Your task to perform on an android device: See recent photos Image 0: 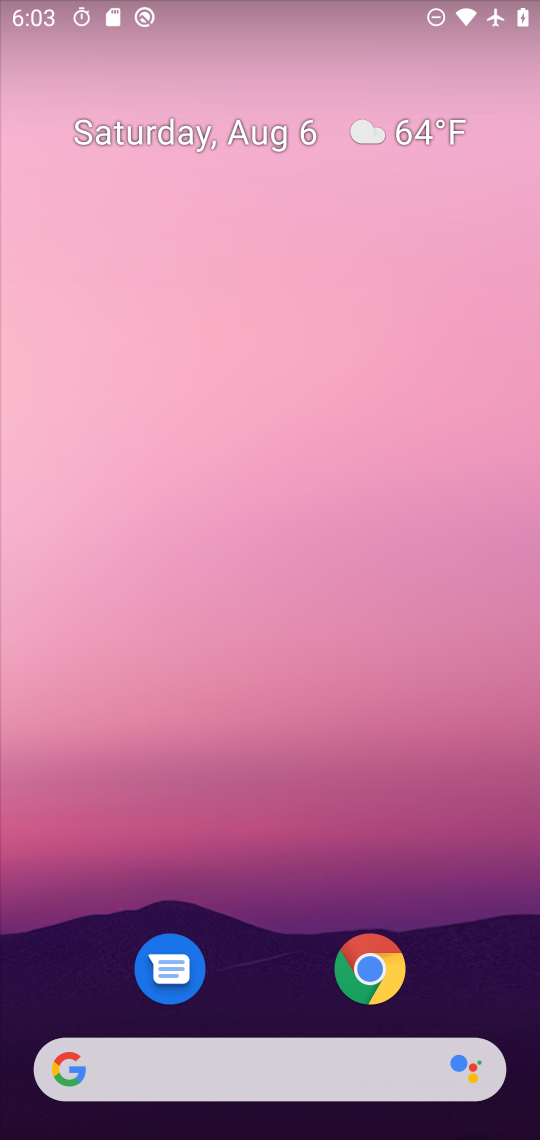
Step 0: drag from (251, 997) to (135, 142)
Your task to perform on an android device: See recent photos Image 1: 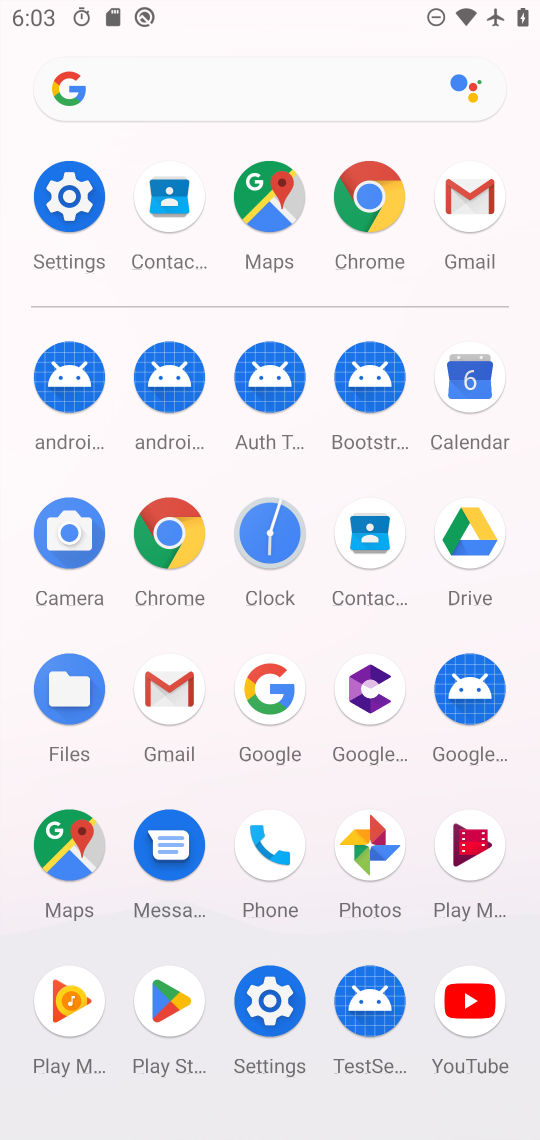
Step 1: click (365, 840)
Your task to perform on an android device: See recent photos Image 2: 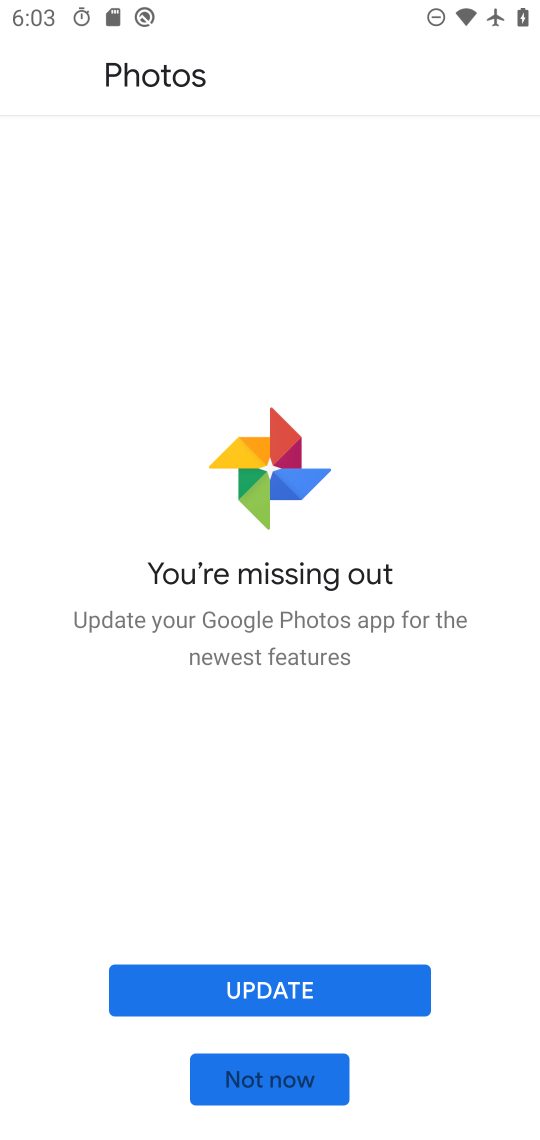
Step 2: click (272, 984)
Your task to perform on an android device: See recent photos Image 3: 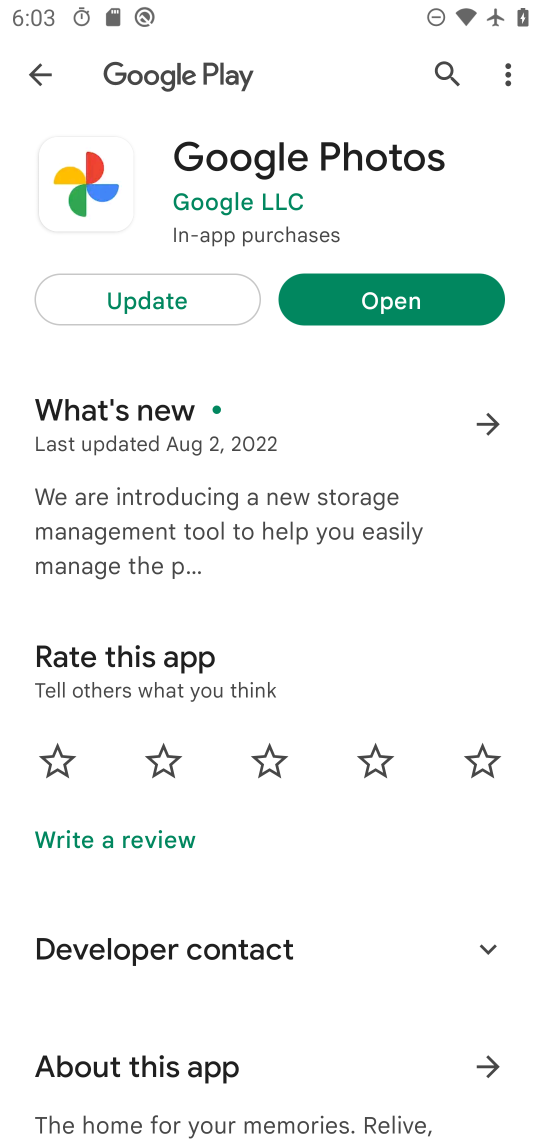
Step 3: click (205, 306)
Your task to perform on an android device: See recent photos Image 4: 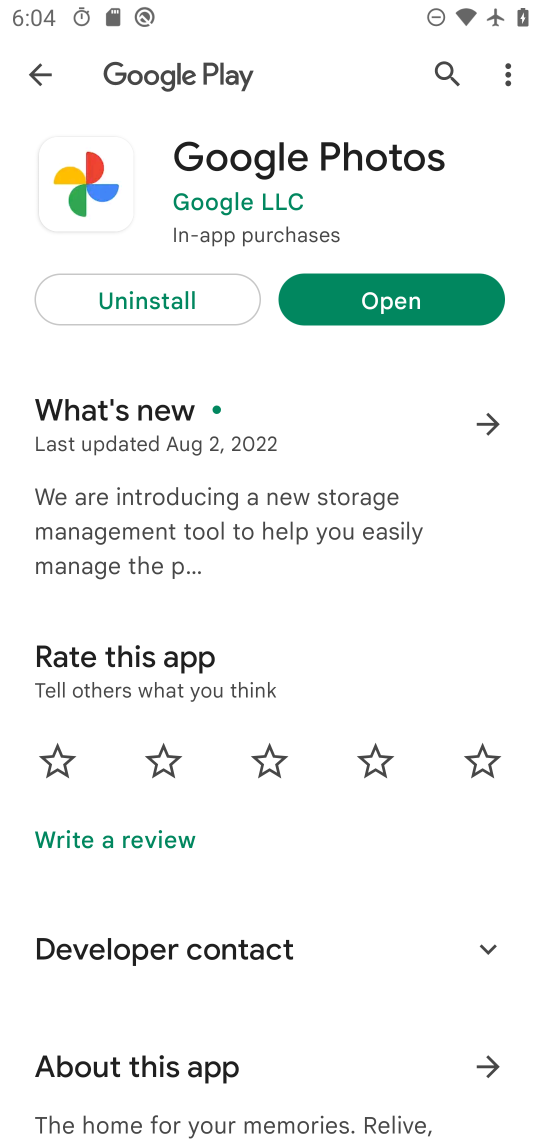
Step 4: click (420, 309)
Your task to perform on an android device: See recent photos Image 5: 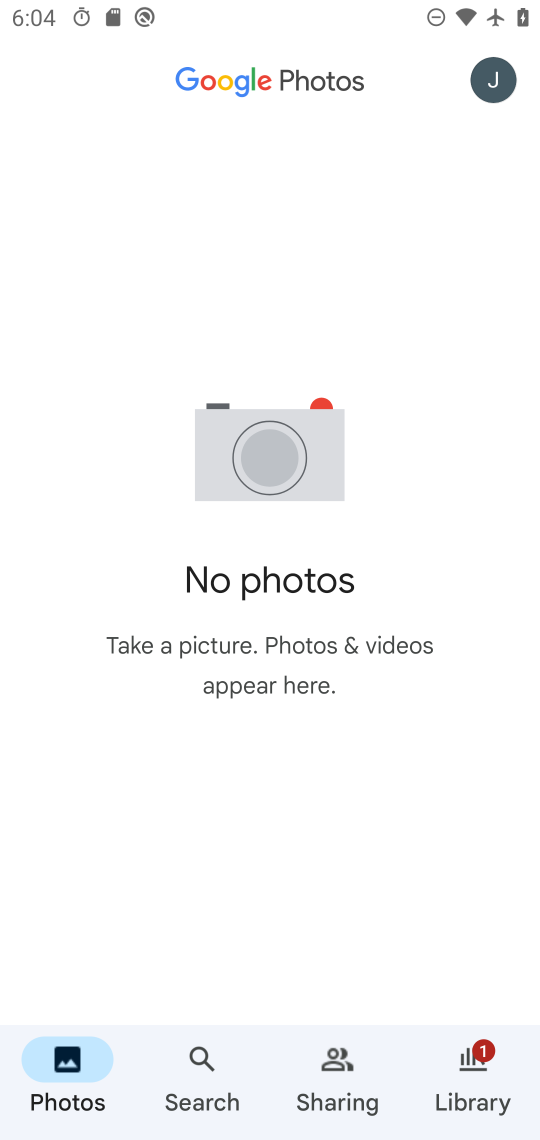
Step 5: task complete